Your task to perform on an android device: What's the weather today? Image 0: 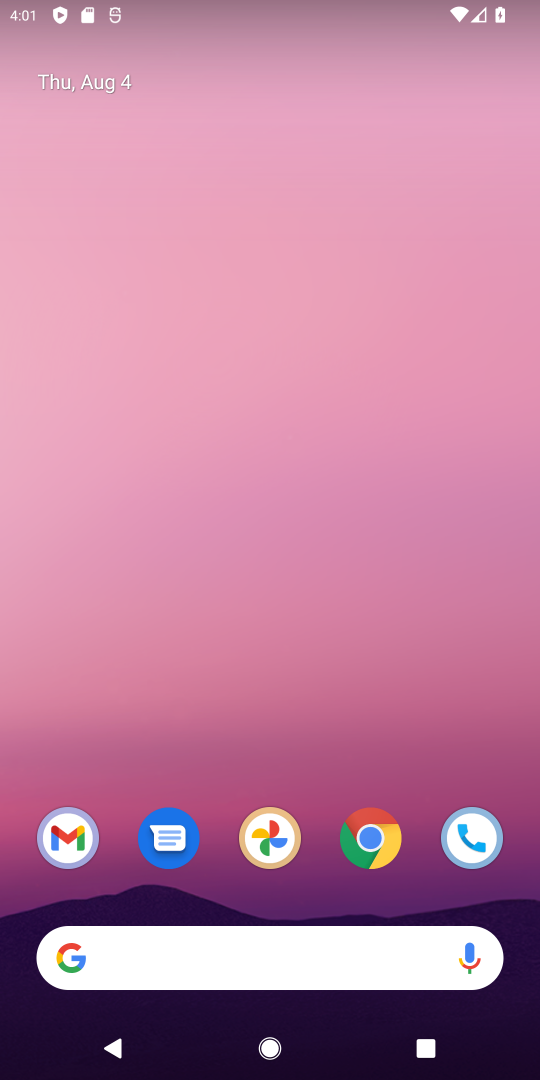
Step 0: click (309, 957)
Your task to perform on an android device: What's the weather today? Image 1: 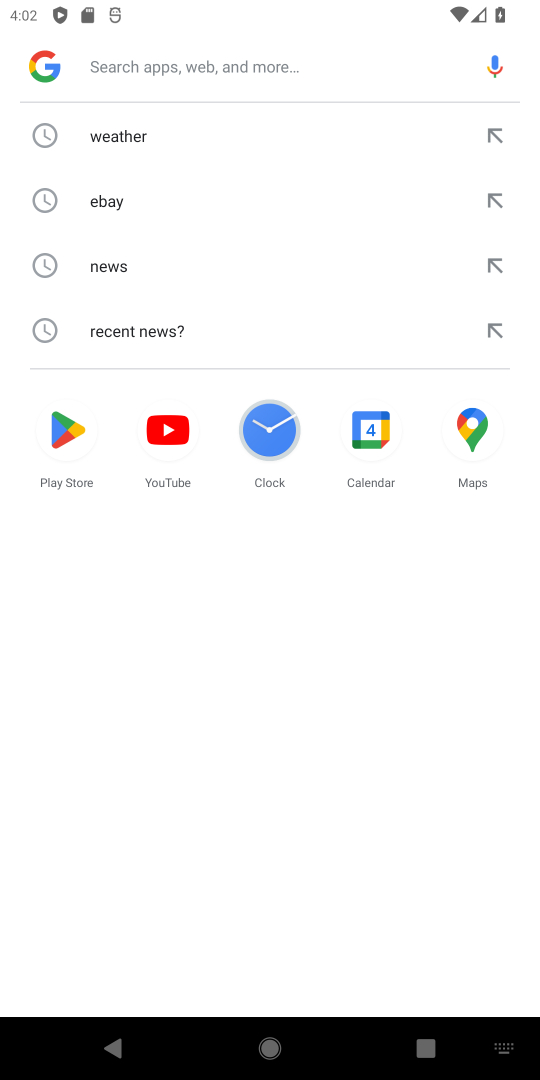
Step 1: click (143, 136)
Your task to perform on an android device: What's the weather today? Image 2: 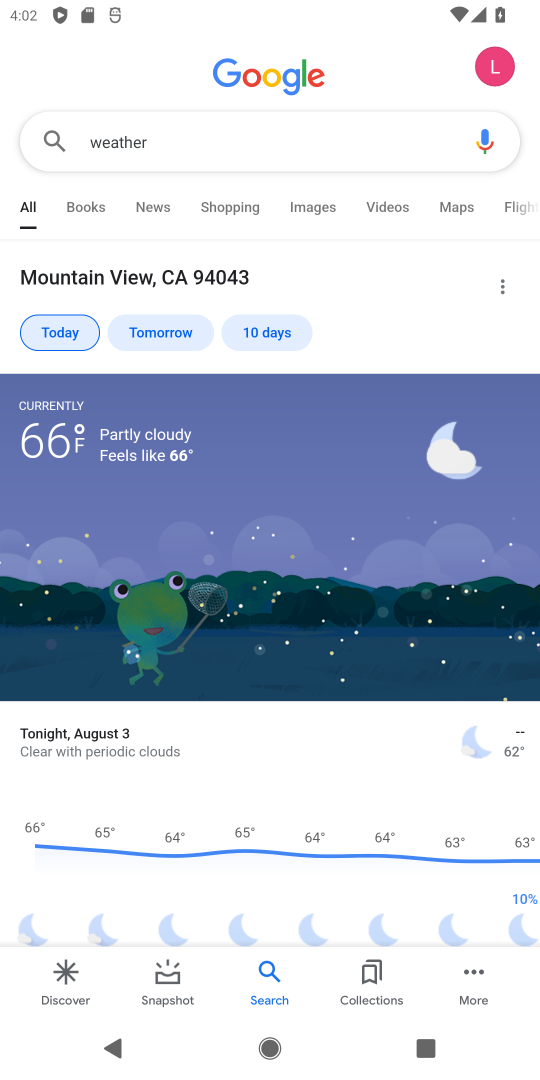
Step 2: task complete